Your task to perform on an android device: toggle notifications settings in the gmail app Image 0: 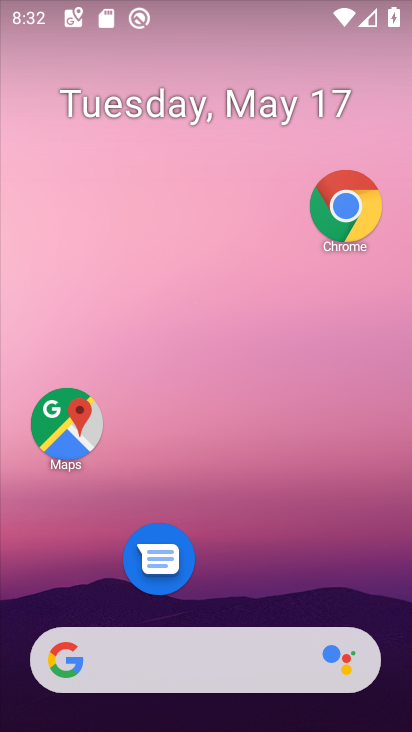
Step 0: drag from (246, 584) to (320, 2)
Your task to perform on an android device: toggle notifications settings in the gmail app Image 1: 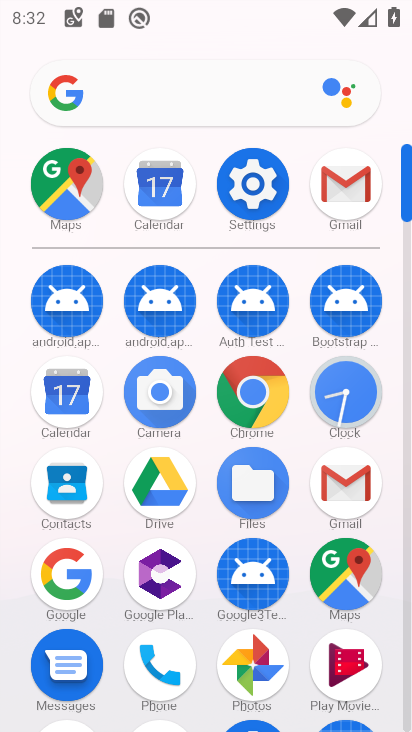
Step 1: click (342, 502)
Your task to perform on an android device: toggle notifications settings in the gmail app Image 2: 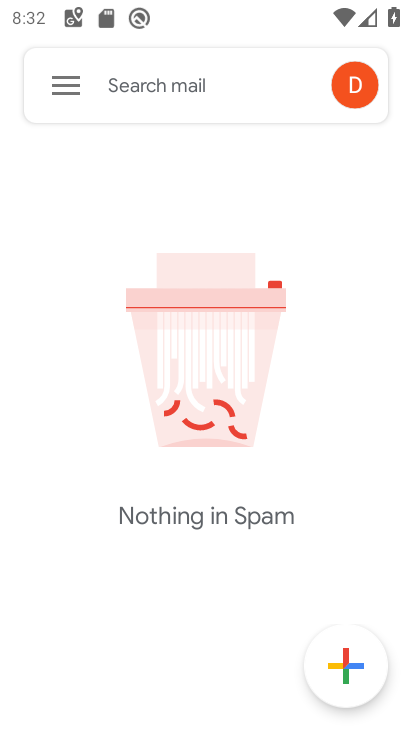
Step 2: click (64, 92)
Your task to perform on an android device: toggle notifications settings in the gmail app Image 3: 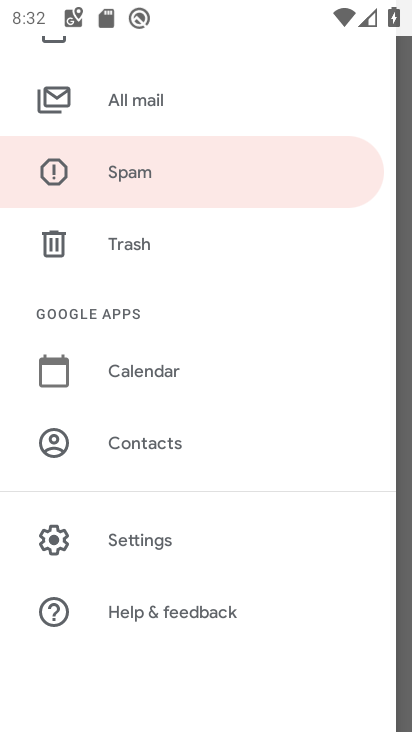
Step 3: click (102, 538)
Your task to perform on an android device: toggle notifications settings in the gmail app Image 4: 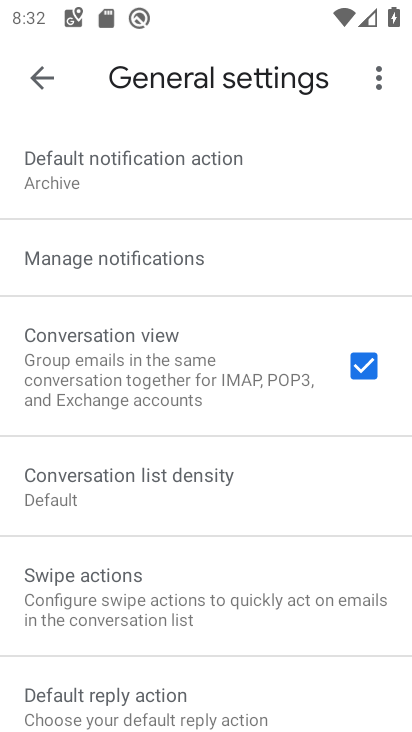
Step 4: click (198, 248)
Your task to perform on an android device: toggle notifications settings in the gmail app Image 5: 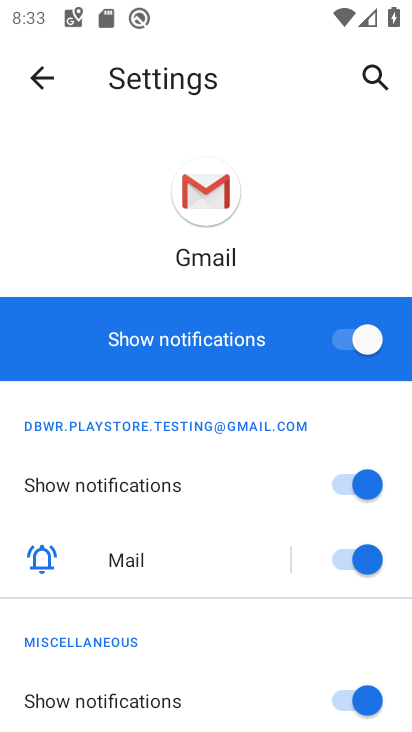
Step 5: click (338, 342)
Your task to perform on an android device: toggle notifications settings in the gmail app Image 6: 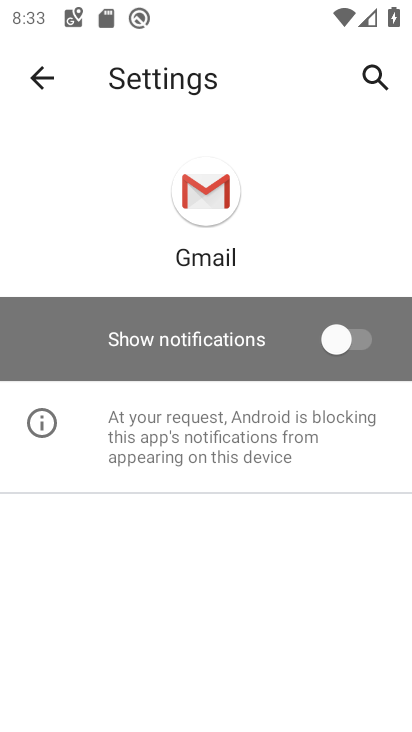
Step 6: task complete